Your task to perform on an android device: toggle notifications settings in the gmail app Image 0: 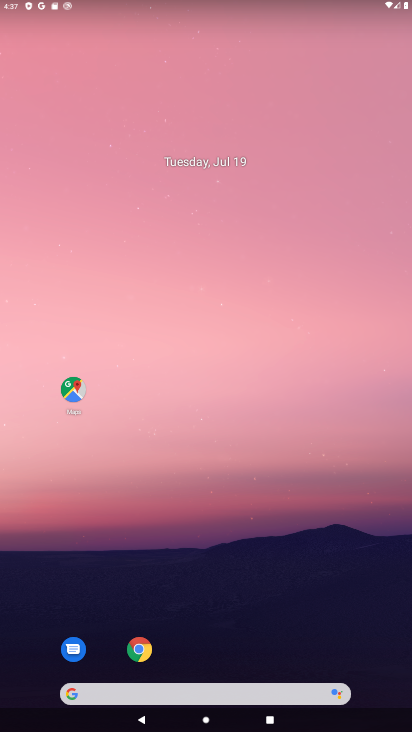
Step 0: drag from (209, 663) to (238, 133)
Your task to perform on an android device: toggle notifications settings in the gmail app Image 1: 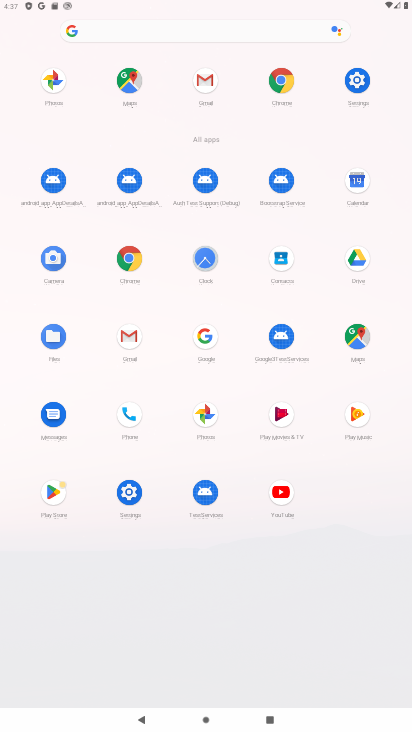
Step 1: click (194, 75)
Your task to perform on an android device: toggle notifications settings in the gmail app Image 2: 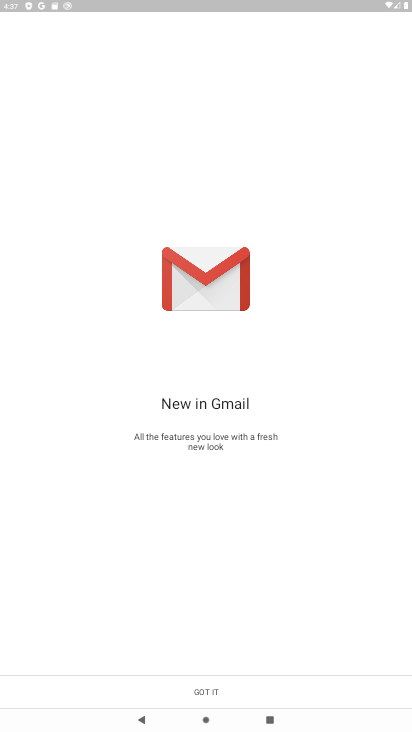
Step 2: click (217, 692)
Your task to perform on an android device: toggle notifications settings in the gmail app Image 3: 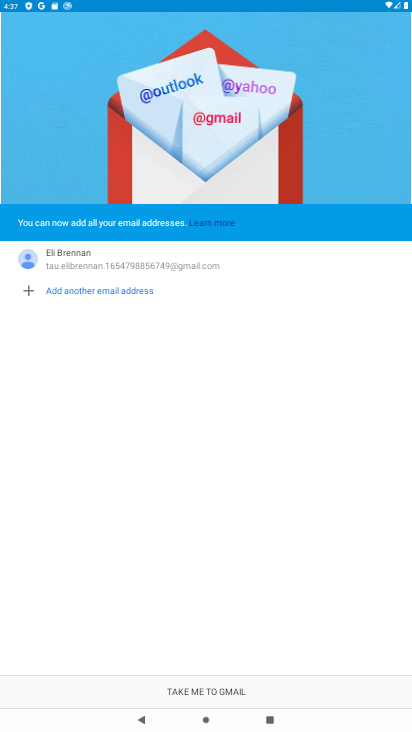
Step 3: click (217, 692)
Your task to perform on an android device: toggle notifications settings in the gmail app Image 4: 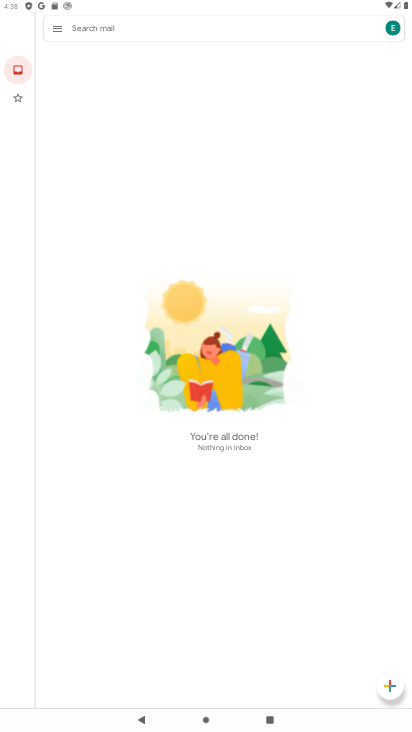
Step 4: click (50, 22)
Your task to perform on an android device: toggle notifications settings in the gmail app Image 5: 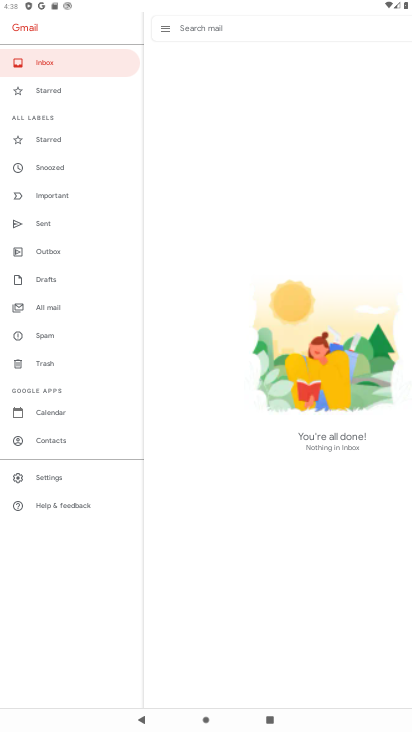
Step 5: click (69, 474)
Your task to perform on an android device: toggle notifications settings in the gmail app Image 6: 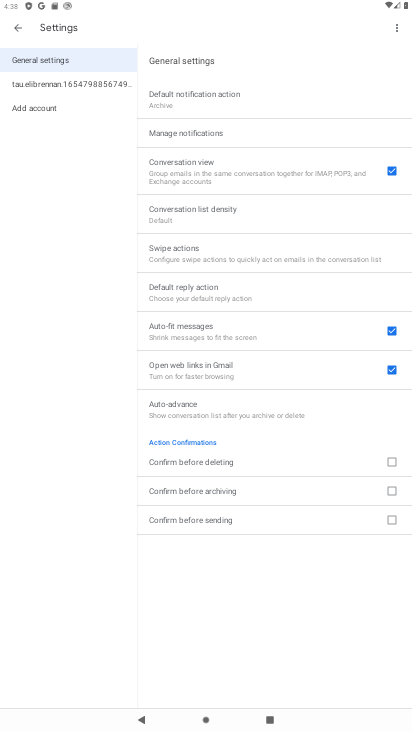
Step 6: click (205, 131)
Your task to perform on an android device: toggle notifications settings in the gmail app Image 7: 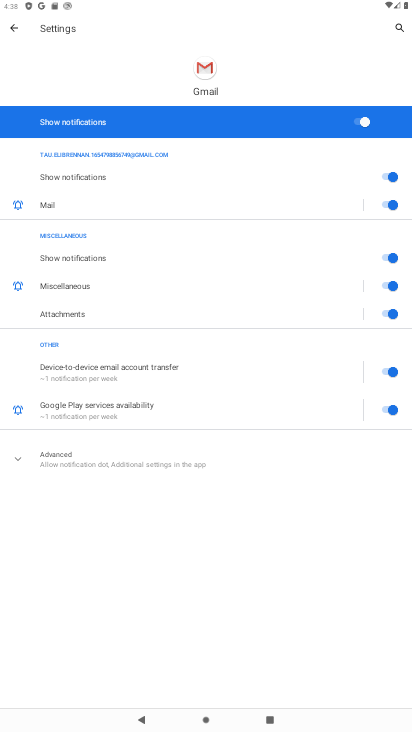
Step 7: click (365, 119)
Your task to perform on an android device: toggle notifications settings in the gmail app Image 8: 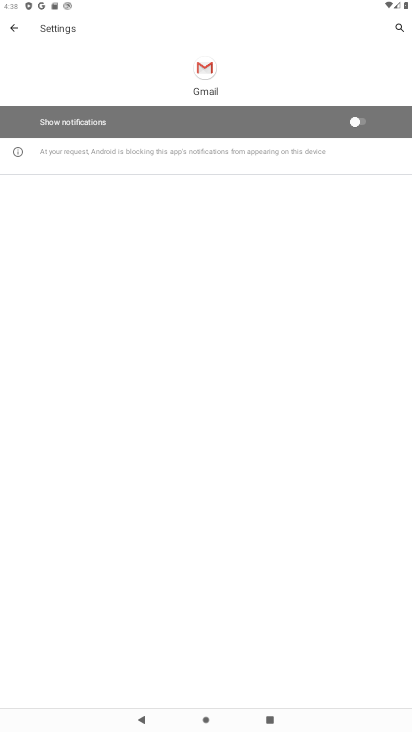
Step 8: task complete